Your task to perform on an android device: choose inbox layout in the gmail app Image 0: 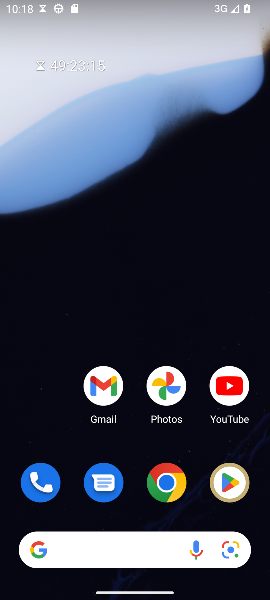
Step 0: drag from (153, 529) to (156, 74)
Your task to perform on an android device: choose inbox layout in the gmail app Image 1: 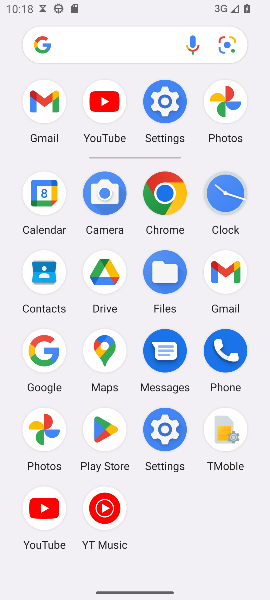
Step 1: click (55, 103)
Your task to perform on an android device: choose inbox layout in the gmail app Image 2: 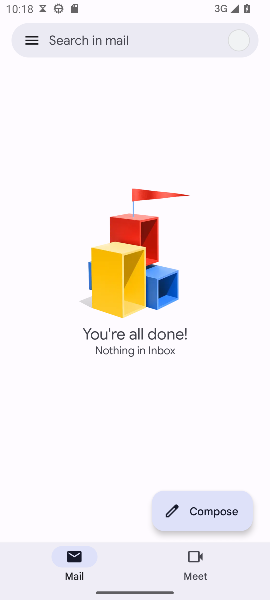
Step 2: click (36, 48)
Your task to perform on an android device: choose inbox layout in the gmail app Image 3: 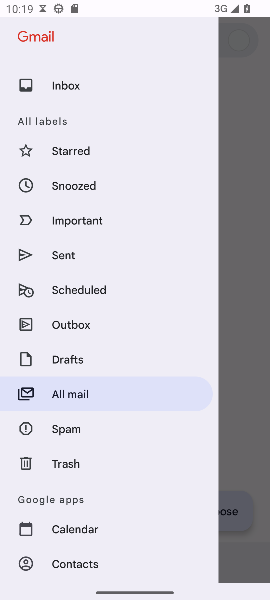
Step 3: drag from (80, 518) to (8, 156)
Your task to perform on an android device: choose inbox layout in the gmail app Image 4: 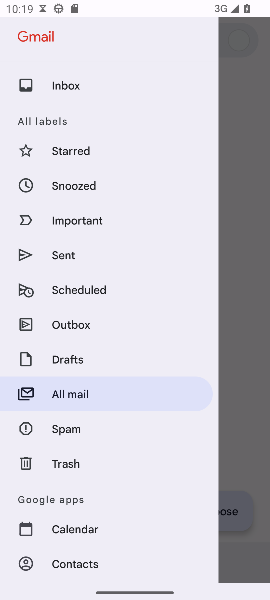
Step 4: drag from (91, 559) to (71, 261)
Your task to perform on an android device: choose inbox layout in the gmail app Image 5: 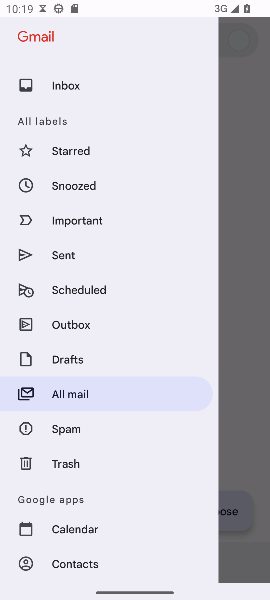
Step 5: drag from (83, 553) to (42, 152)
Your task to perform on an android device: choose inbox layout in the gmail app Image 6: 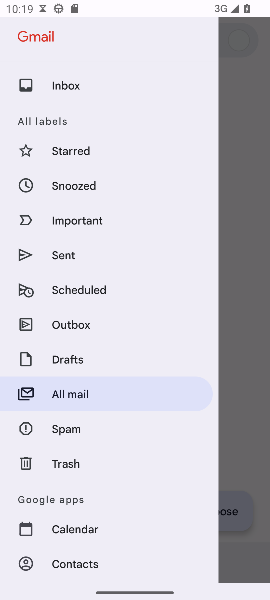
Step 6: drag from (120, 539) to (64, 161)
Your task to perform on an android device: choose inbox layout in the gmail app Image 7: 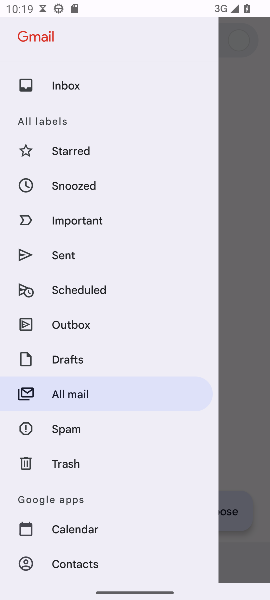
Step 7: drag from (77, 562) to (31, 201)
Your task to perform on an android device: choose inbox layout in the gmail app Image 8: 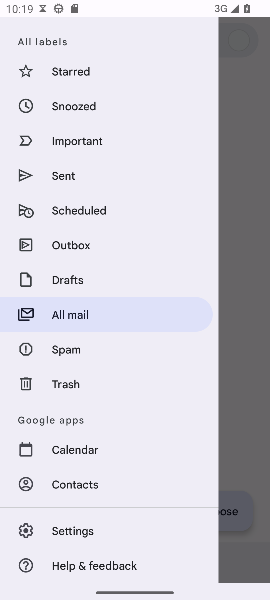
Step 8: click (83, 523)
Your task to perform on an android device: choose inbox layout in the gmail app Image 9: 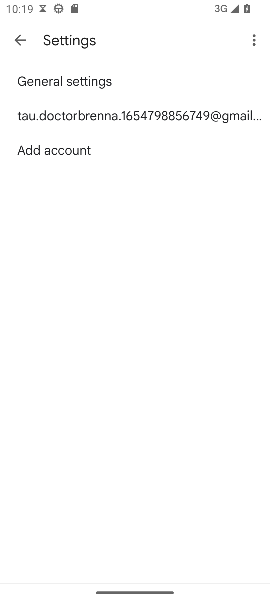
Step 9: click (74, 110)
Your task to perform on an android device: choose inbox layout in the gmail app Image 10: 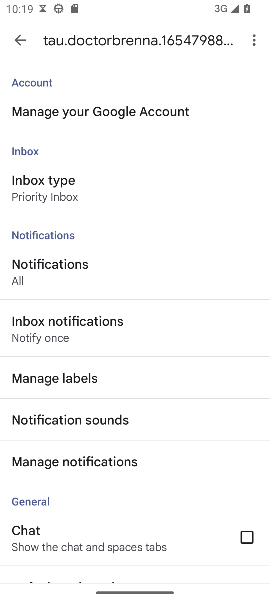
Step 10: click (52, 191)
Your task to perform on an android device: choose inbox layout in the gmail app Image 11: 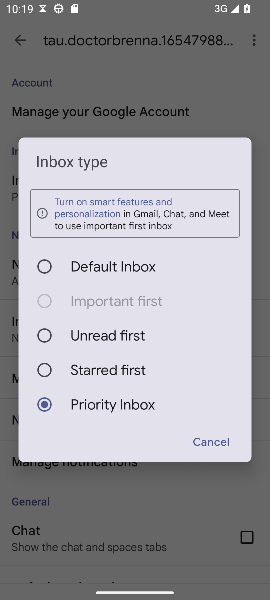
Step 11: click (81, 274)
Your task to perform on an android device: choose inbox layout in the gmail app Image 12: 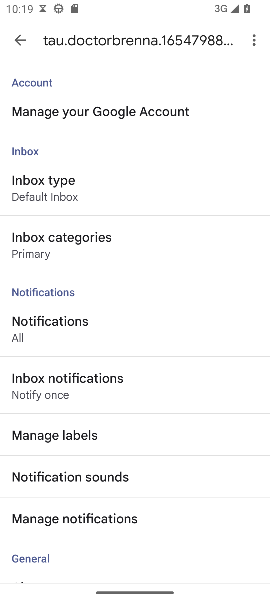
Step 12: task complete